Your task to perform on an android device: Go to Amazon Image 0: 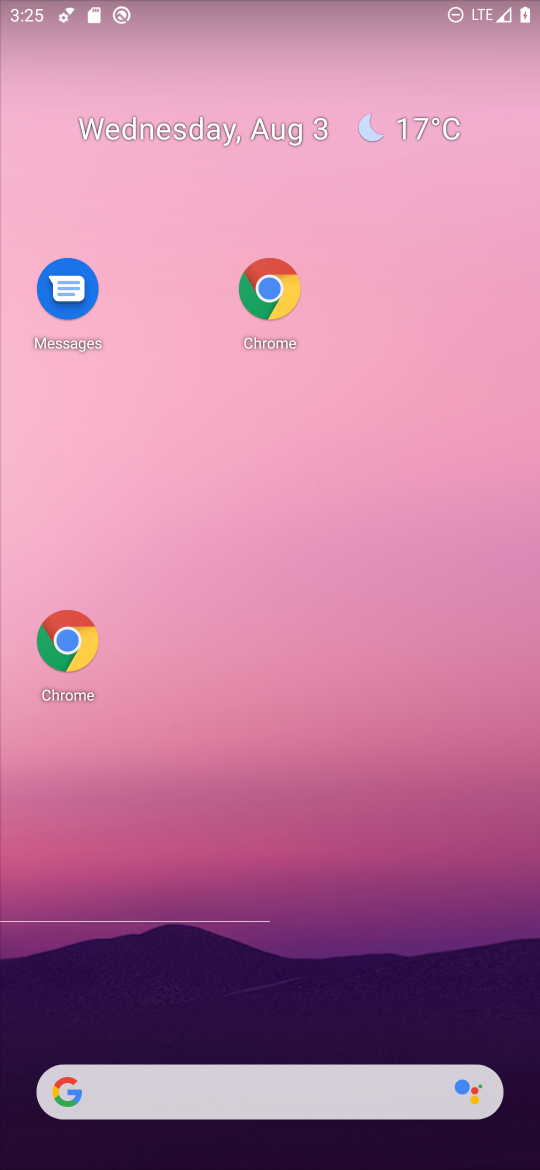
Step 0: click (68, 640)
Your task to perform on an android device: Go to Amazon Image 1: 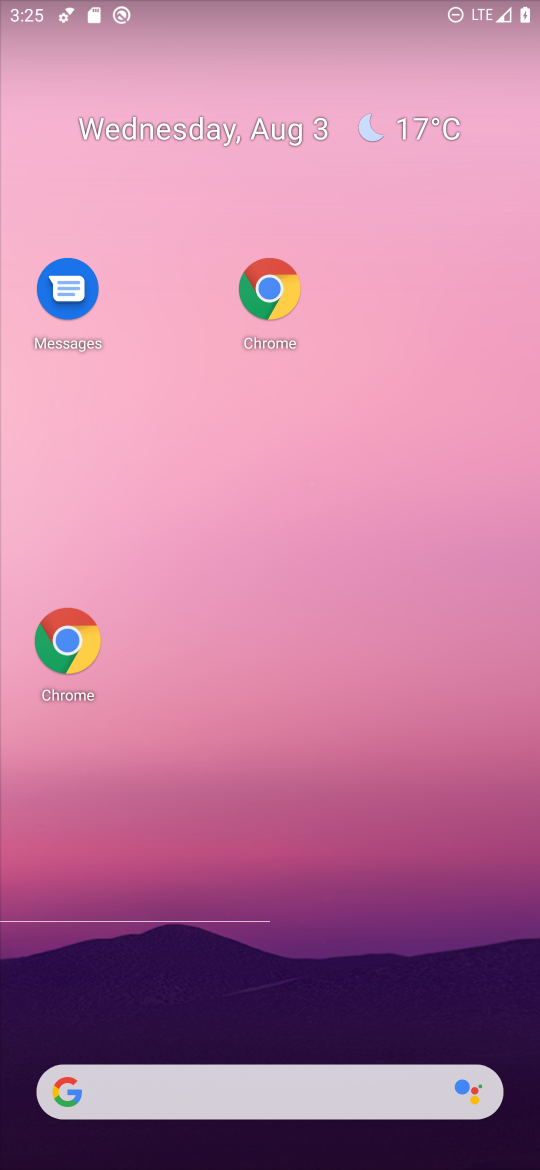
Step 1: task complete